Your task to perform on an android device: create a new album in the google photos Image 0: 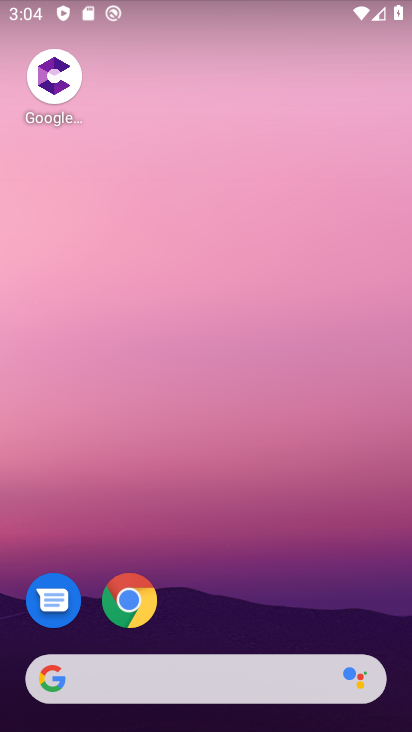
Step 0: drag from (259, 622) to (217, 190)
Your task to perform on an android device: create a new album in the google photos Image 1: 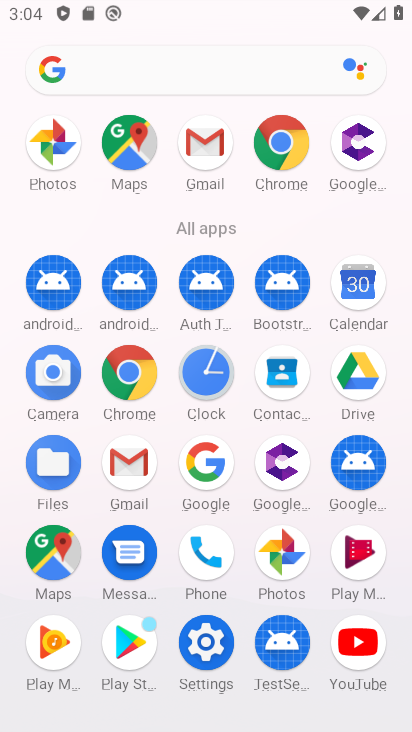
Step 1: click (278, 564)
Your task to perform on an android device: create a new album in the google photos Image 2: 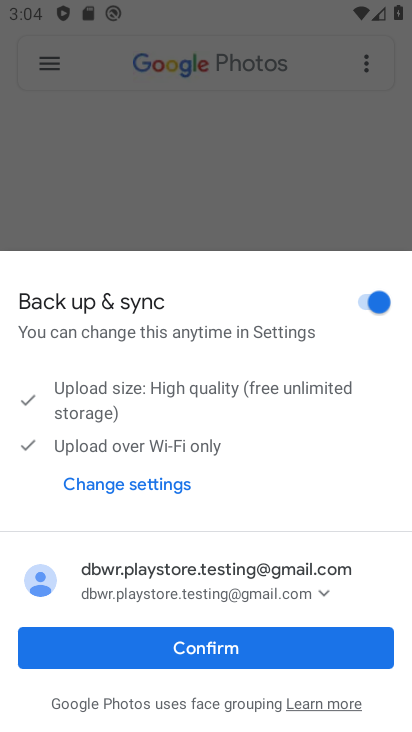
Step 2: click (253, 654)
Your task to perform on an android device: create a new album in the google photos Image 3: 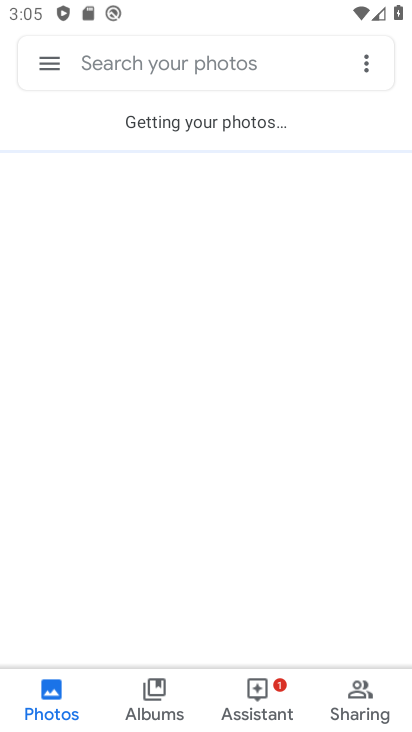
Step 3: click (270, 699)
Your task to perform on an android device: create a new album in the google photos Image 4: 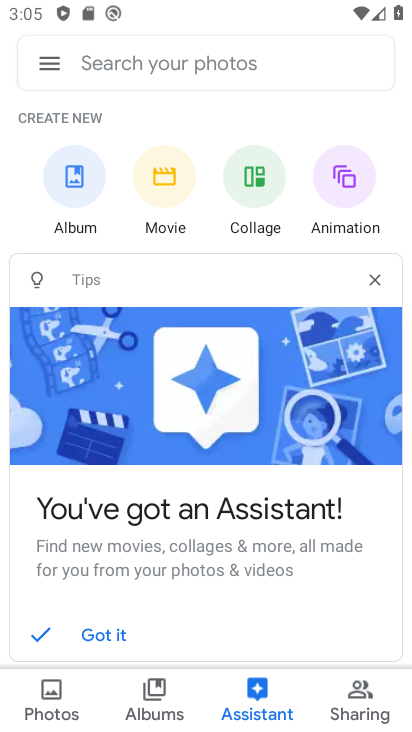
Step 4: click (75, 182)
Your task to perform on an android device: create a new album in the google photos Image 5: 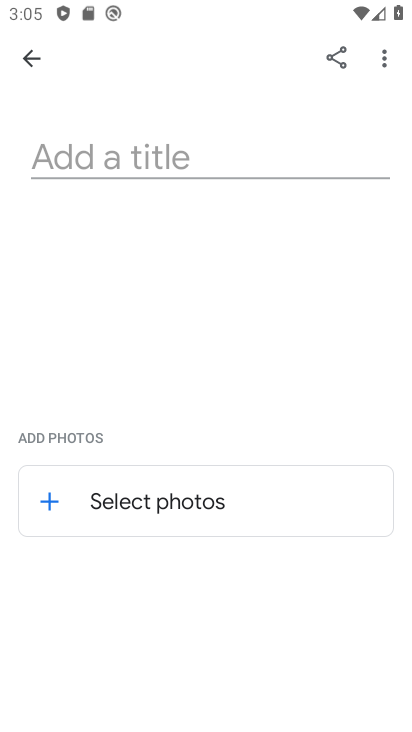
Step 5: click (135, 152)
Your task to perform on an android device: create a new album in the google photos Image 6: 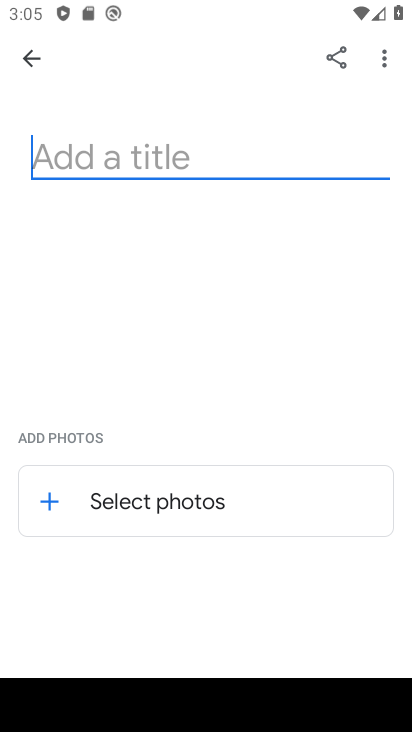
Step 6: type "dnkjnjekenk"
Your task to perform on an android device: create a new album in the google photos Image 7: 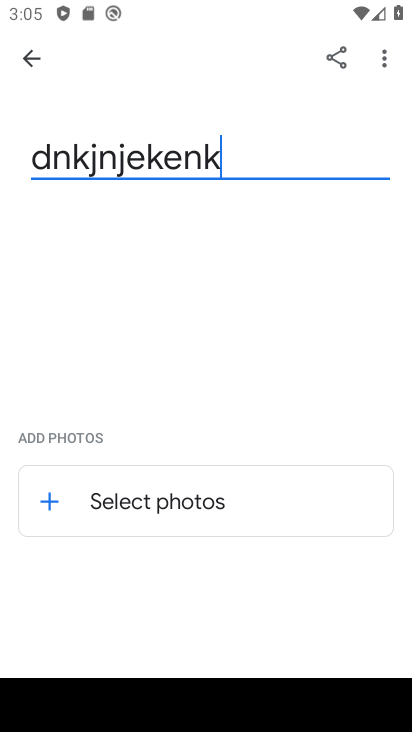
Step 7: click (265, 495)
Your task to perform on an android device: create a new album in the google photos Image 8: 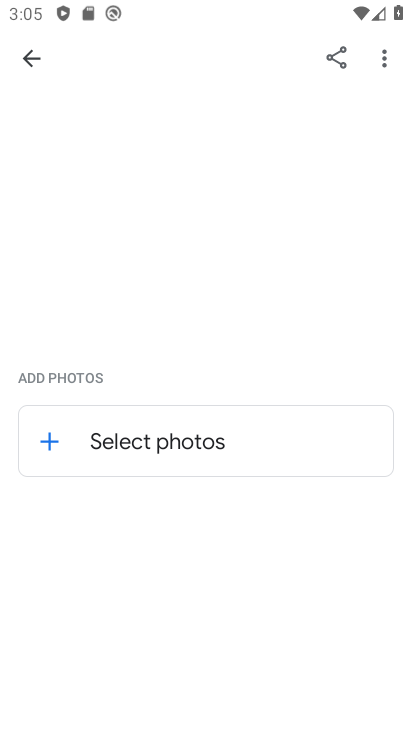
Step 8: click (172, 429)
Your task to perform on an android device: create a new album in the google photos Image 9: 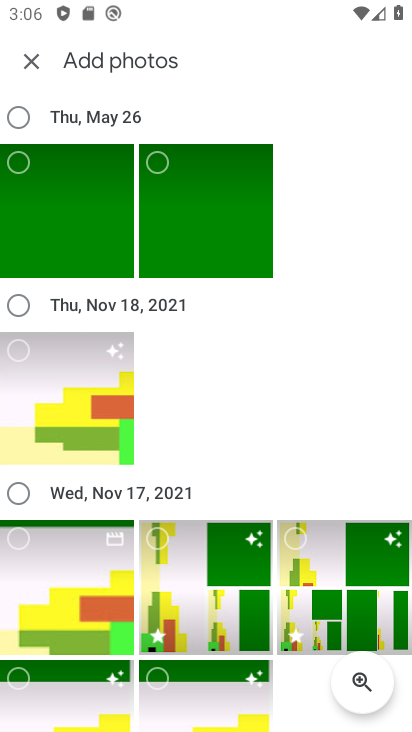
Step 9: click (175, 245)
Your task to perform on an android device: create a new album in the google photos Image 10: 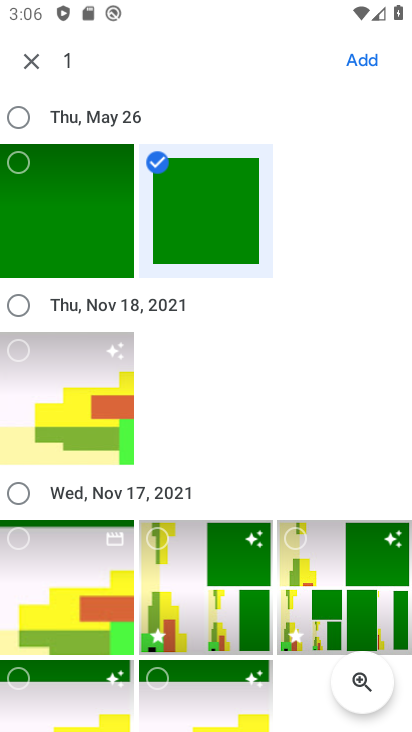
Step 10: click (79, 234)
Your task to perform on an android device: create a new album in the google photos Image 11: 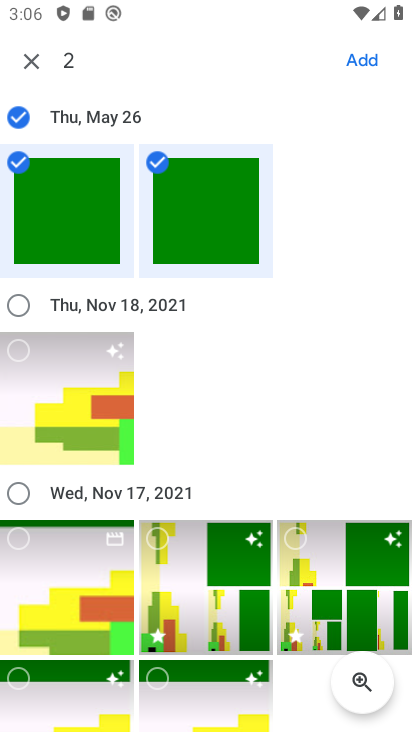
Step 11: click (374, 63)
Your task to perform on an android device: create a new album in the google photos Image 12: 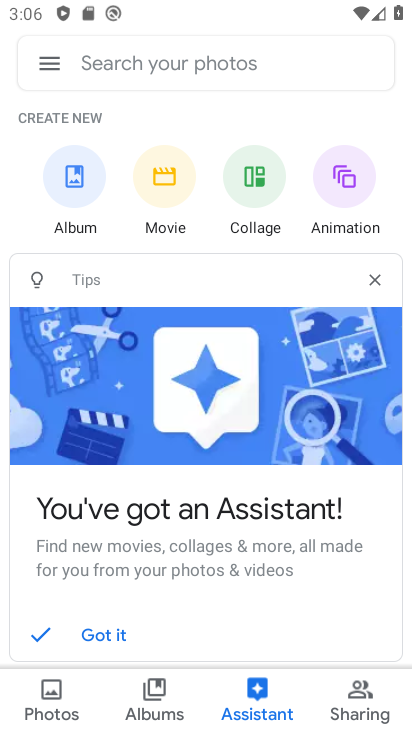
Step 12: task complete